Your task to perform on an android device: Open settings on Google Maps Image 0: 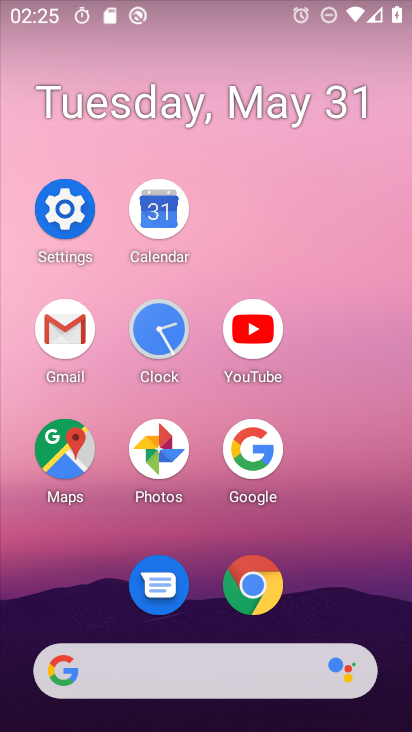
Step 0: click (55, 446)
Your task to perform on an android device: Open settings on Google Maps Image 1: 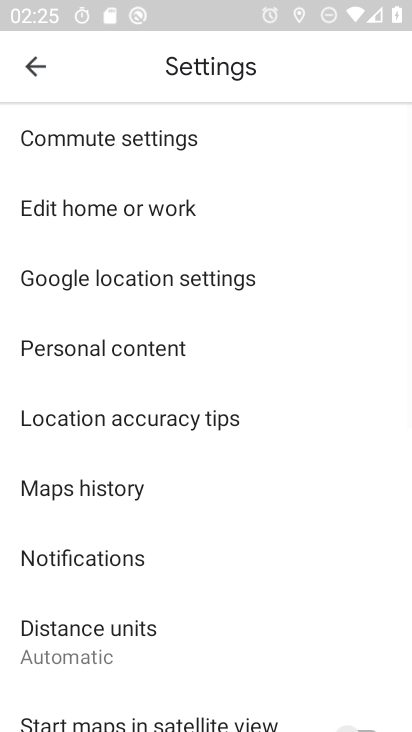
Step 1: task complete